Your task to perform on an android device: See recent photos Image 0: 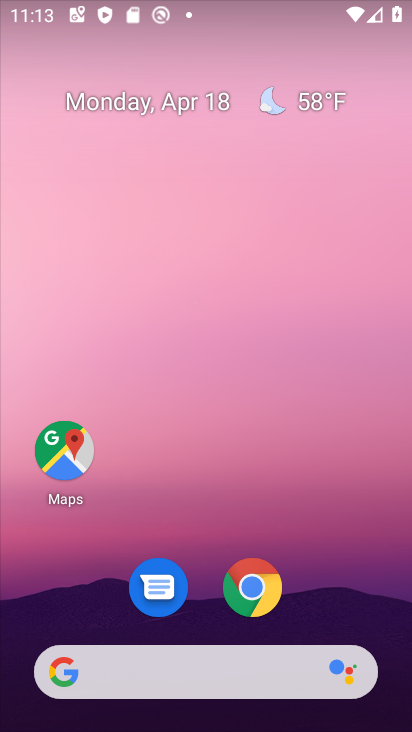
Step 0: drag from (170, 635) to (260, 138)
Your task to perform on an android device: See recent photos Image 1: 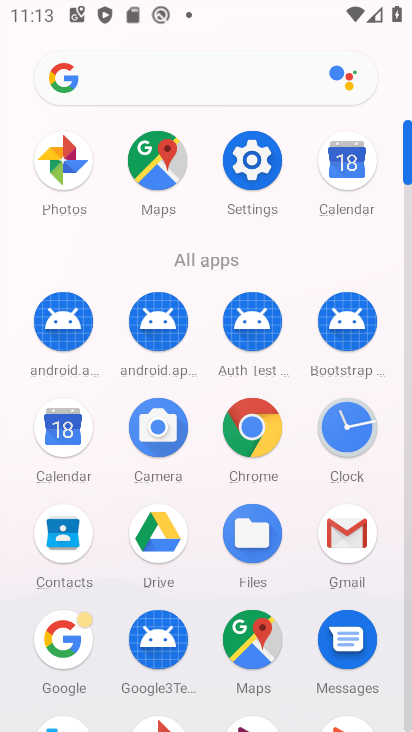
Step 1: drag from (176, 616) to (257, 372)
Your task to perform on an android device: See recent photos Image 2: 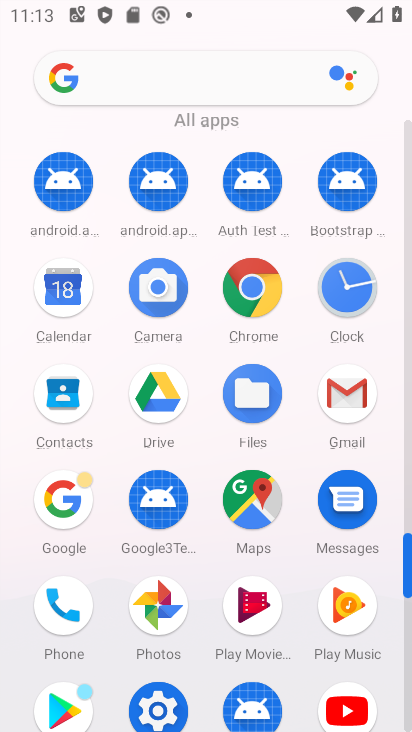
Step 2: click (166, 617)
Your task to perform on an android device: See recent photos Image 3: 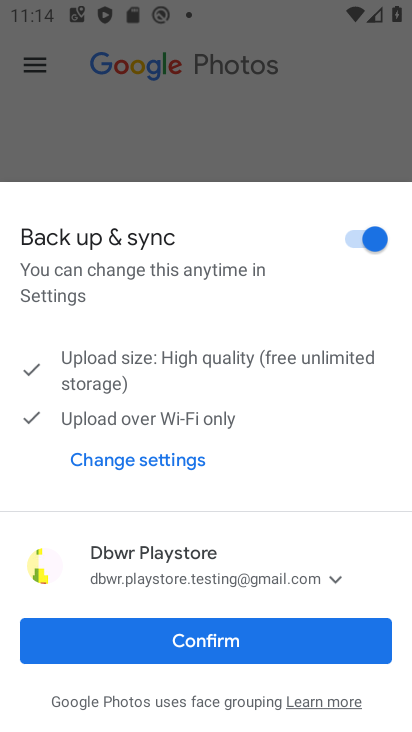
Step 3: click (252, 643)
Your task to perform on an android device: See recent photos Image 4: 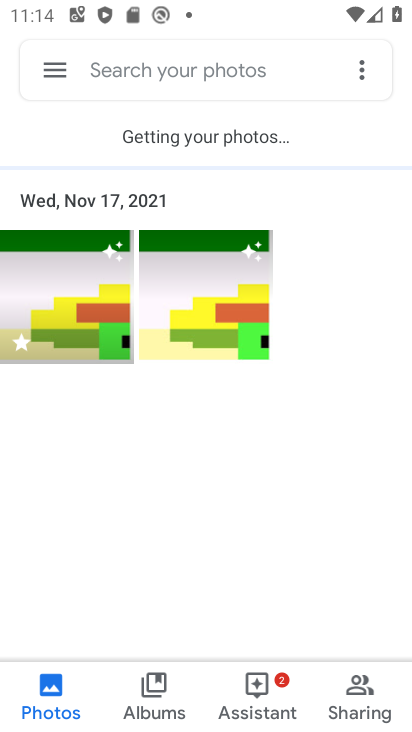
Step 4: task complete